Your task to perform on an android device: Open calendar and show me the first week of next month Image 0: 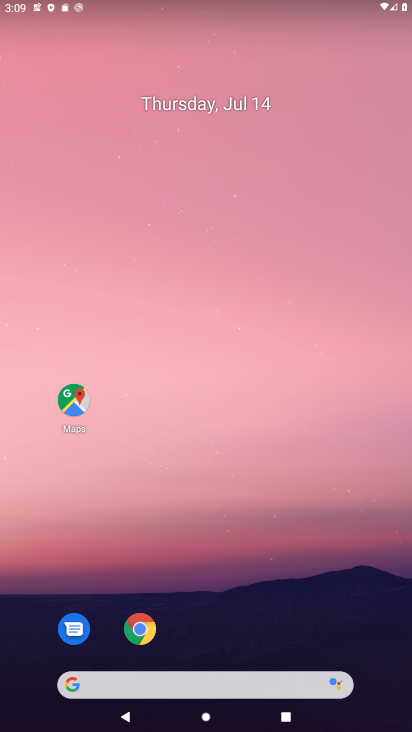
Step 0: drag from (195, 640) to (194, 43)
Your task to perform on an android device: Open calendar and show me the first week of next month Image 1: 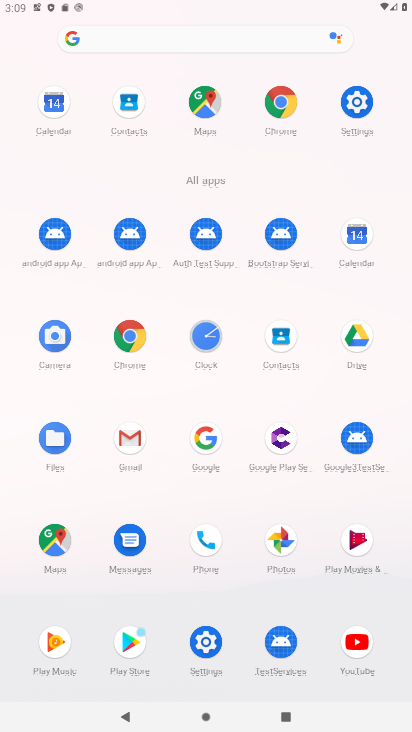
Step 1: click (353, 230)
Your task to perform on an android device: Open calendar and show me the first week of next month Image 2: 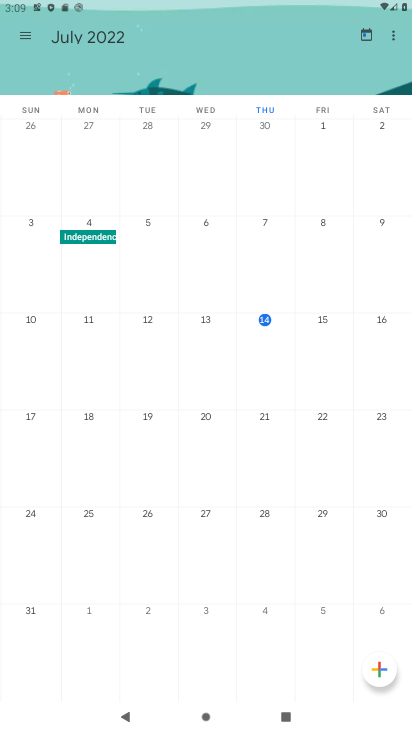
Step 2: drag from (365, 299) to (19, 288)
Your task to perform on an android device: Open calendar and show me the first week of next month Image 3: 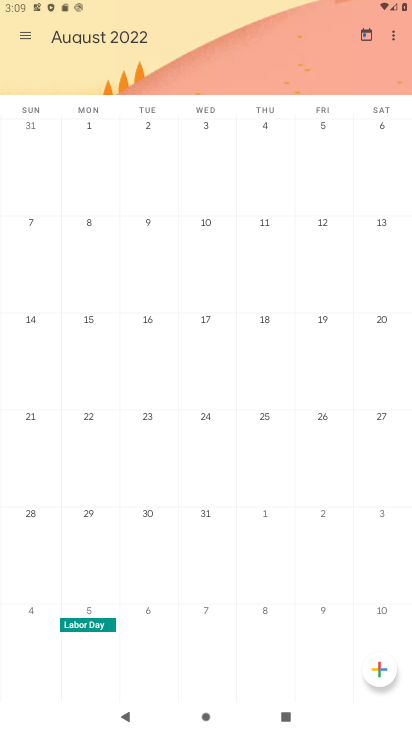
Step 3: click (89, 130)
Your task to perform on an android device: Open calendar and show me the first week of next month Image 4: 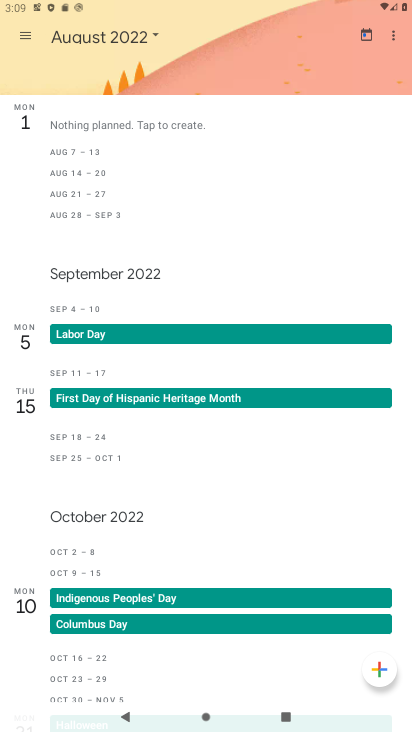
Step 4: task complete